Your task to perform on an android device: Open Android settings Image 0: 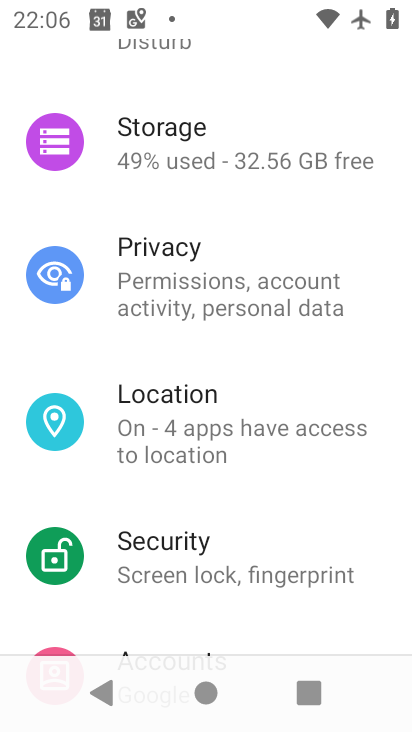
Step 0: drag from (200, 596) to (253, 167)
Your task to perform on an android device: Open Android settings Image 1: 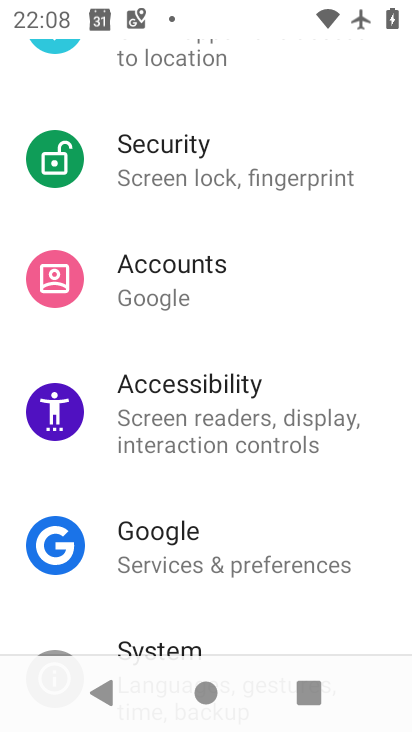
Step 1: task complete